Your task to perform on an android device: Open my contact list Image 0: 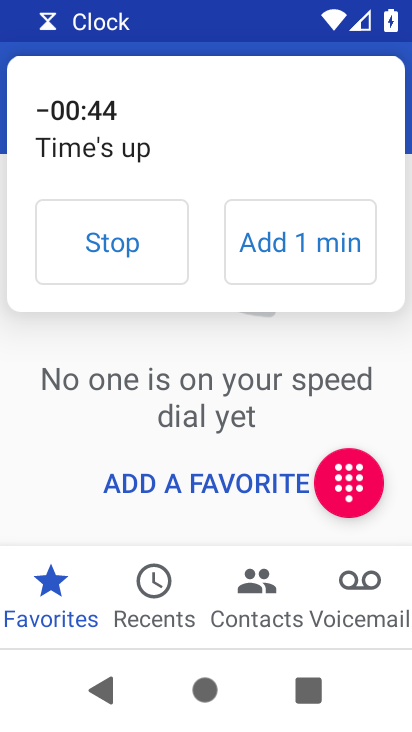
Step 0: press home button
Your task to perform on an android device: Open my contact list Image 1: 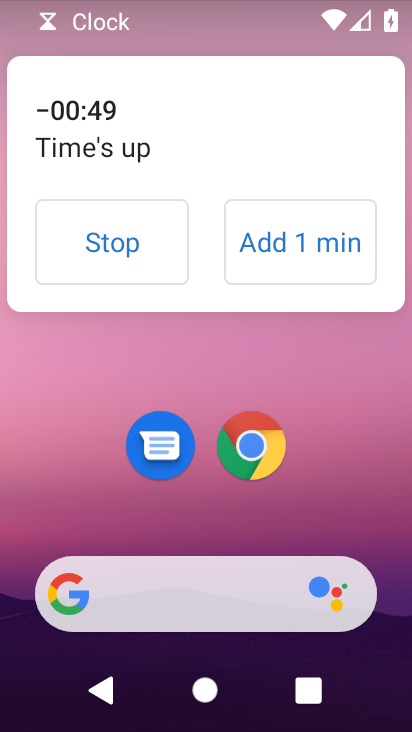
Step 1: click (126, 236)
Your task to perform on an android device: Open my contact list Image 2: 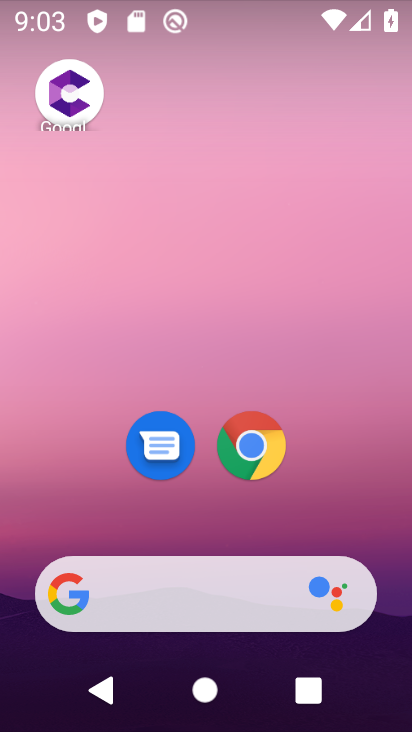
Step 2: drag from (256, 516) to (223, 88)
Your task to perform on an android device: Open my contact list Image 3: 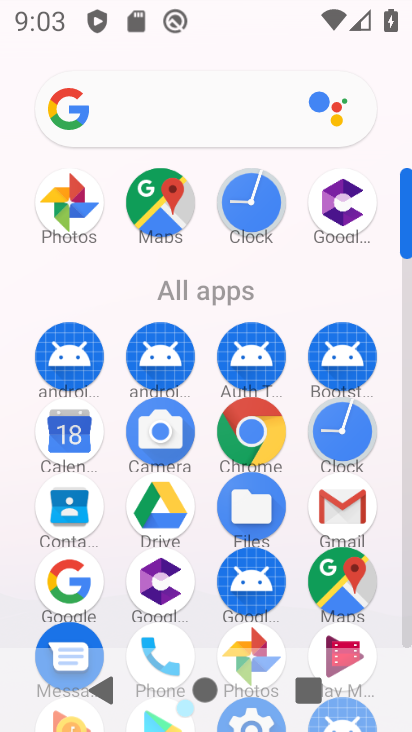
Step 3: click (72, 498)
Your task to perform on an android device: Open my contact list Image 4: 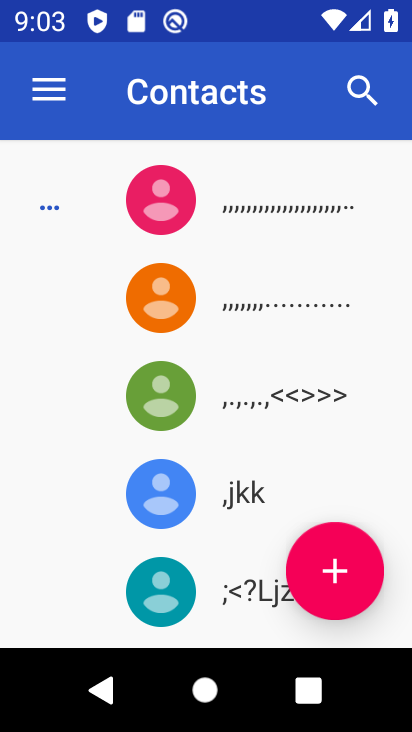
Step 4: task complete